Your task to perform on an android device: Open the map Image 0: 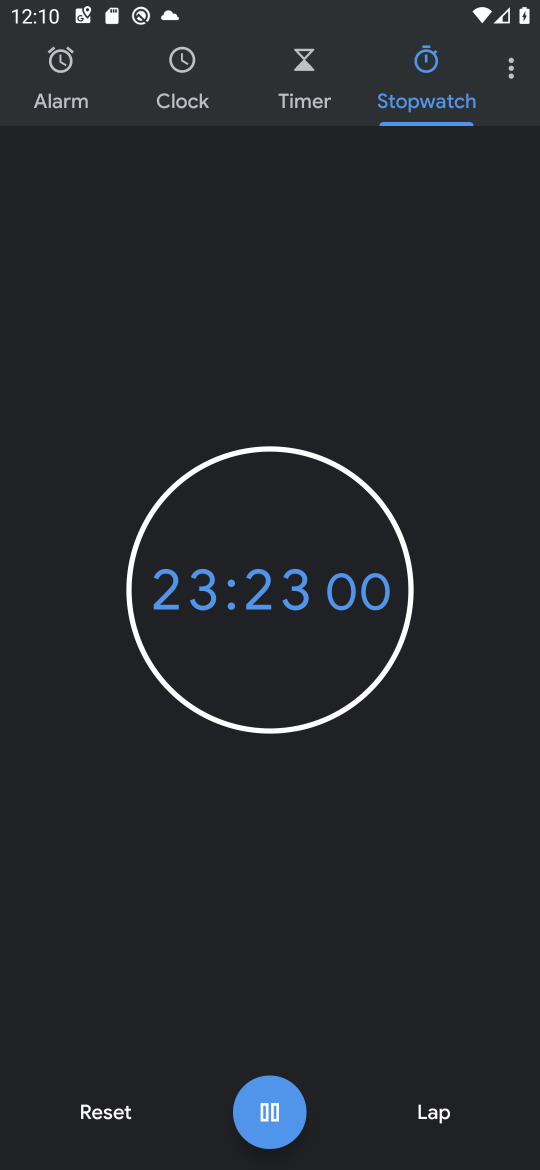
Step 0: click (270, 1103)
Your task to perform on an android device: Open the map Image 1: 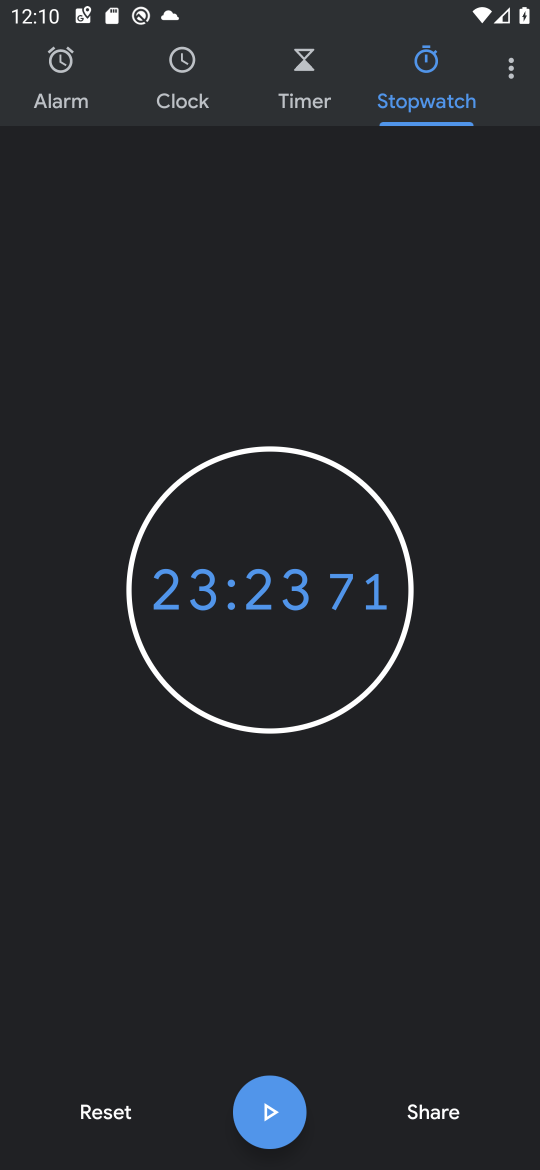
Step 1: press back button
Your task to perform on an android device: Open the map Image 2: 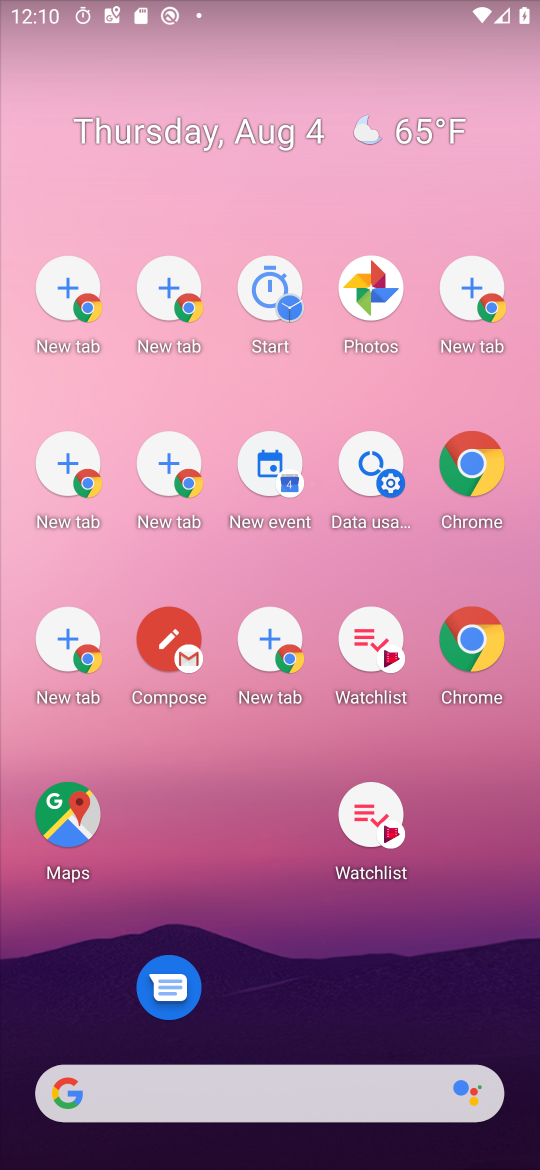
Step 2: click (60, 761)
Your task to perform on an android device: Open the map Image 3: 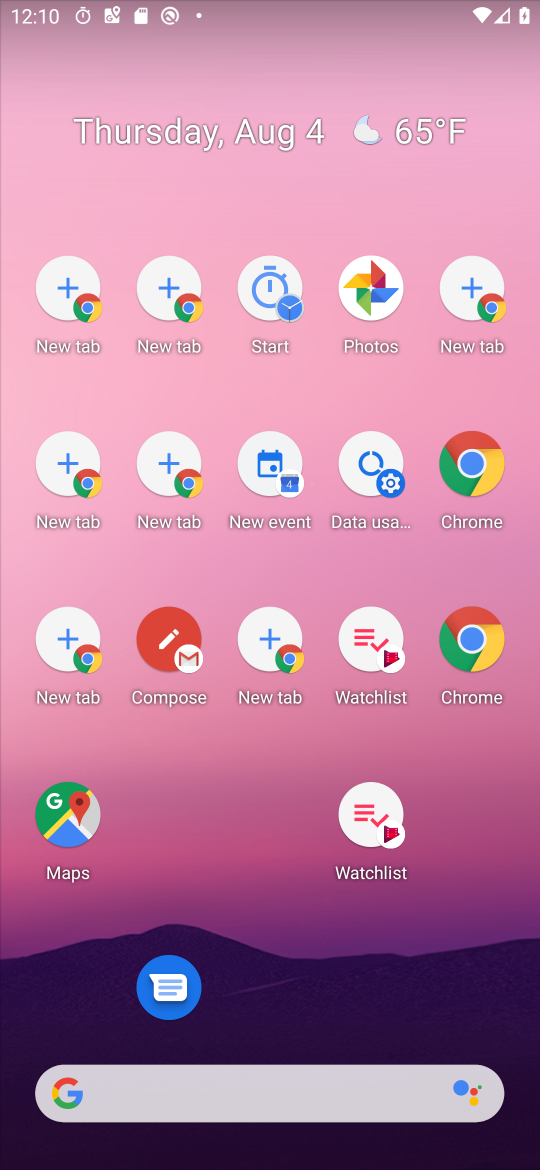
Step 3: click (75, 805)
Your task to perform on an android device: Open the map Image 4: 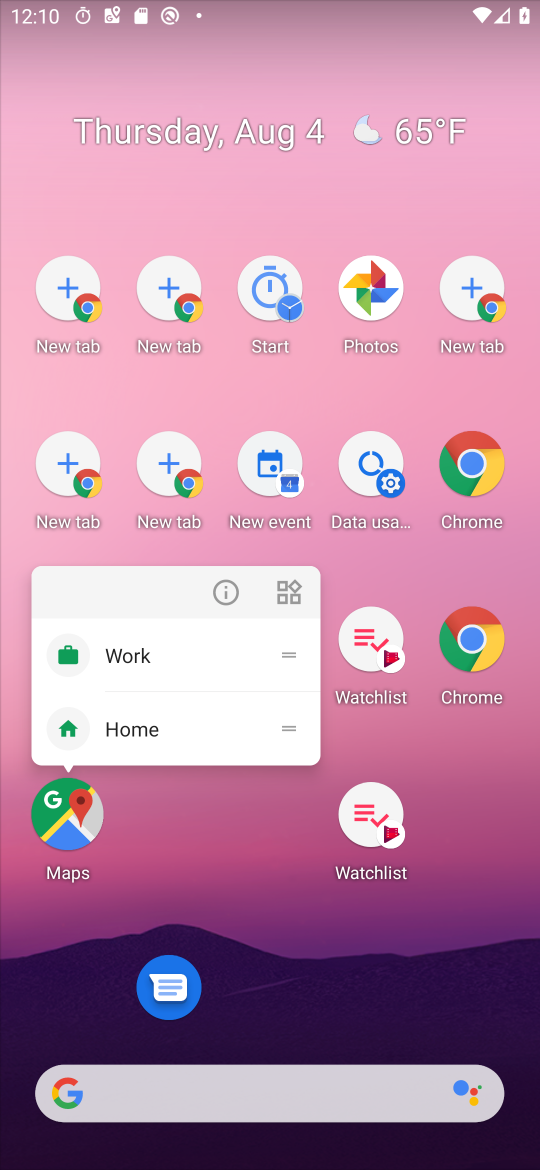
Step 4: click (62, 803)
Your task to perform on an android device: Open the map Image 5: 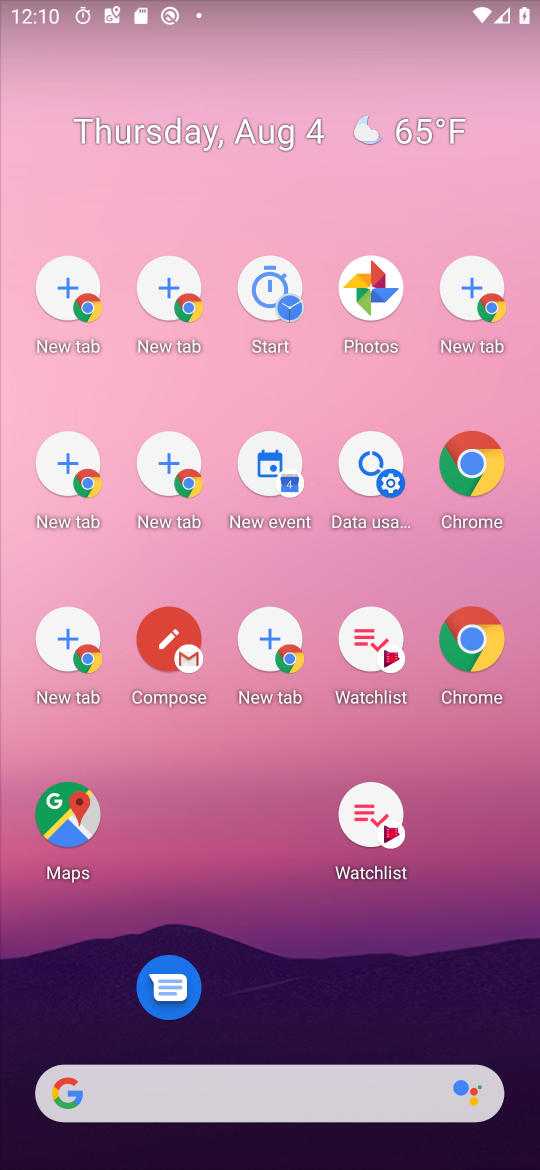
Step 5: click (63, 828)
Your task to perform on an android device: Open the map Image 6: 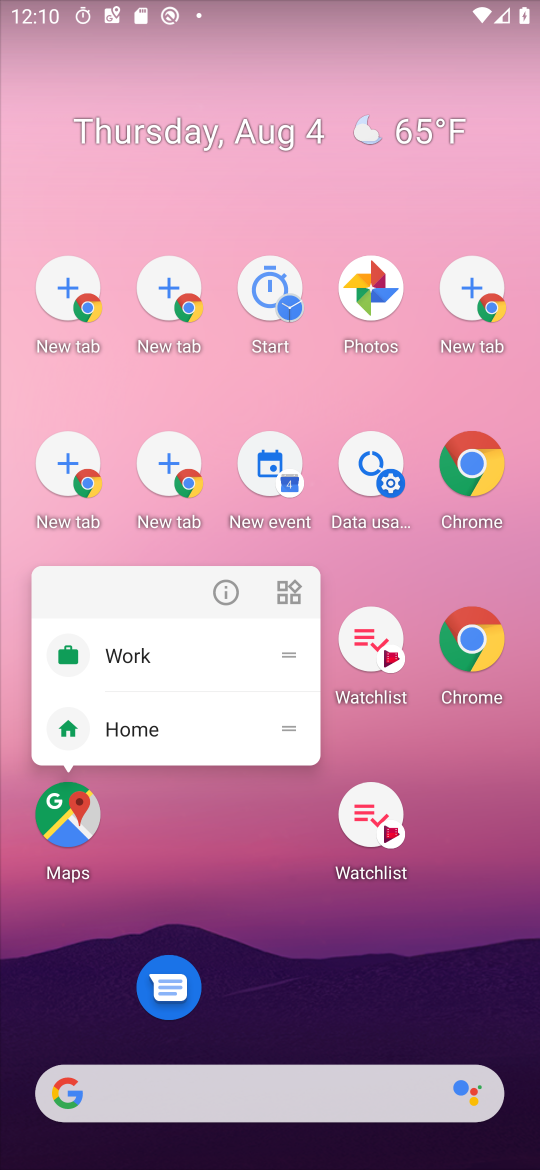
Step 6: click (132, 645)
Your task to perform on an android device: Open the map Image 7: 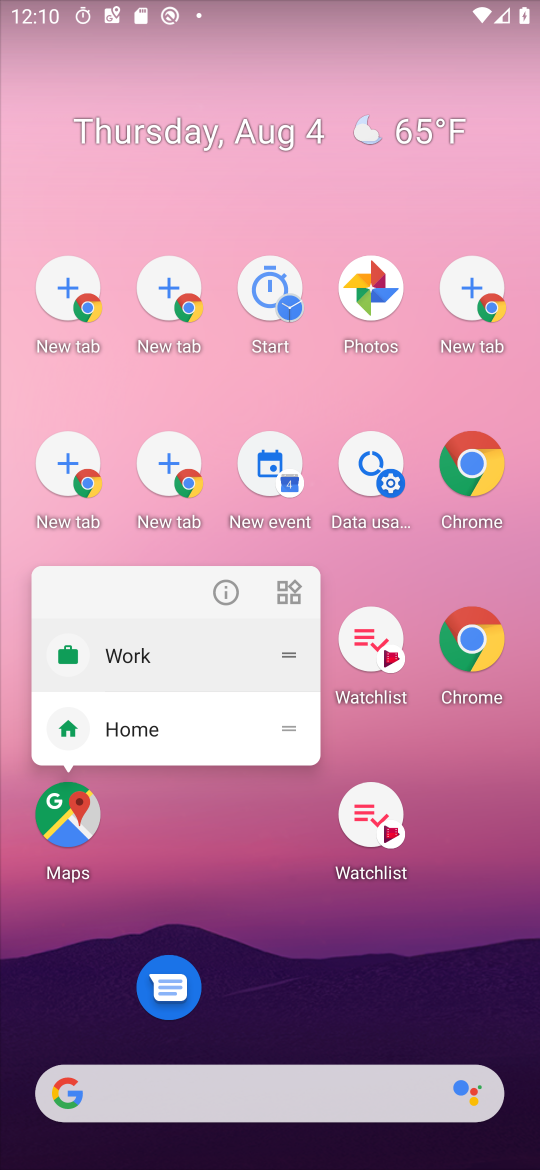
Step 7: click (132, 645)
Your task to perform on an android device: Open the map Image 8: 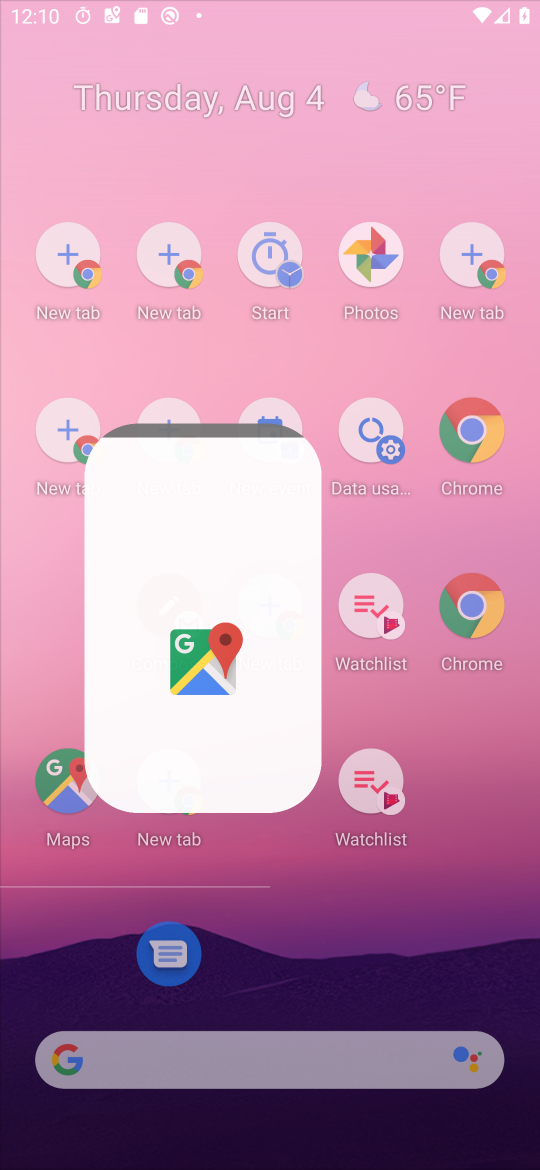
Step 8: click (74, 817)
Your task to perform on an android device: Open the map Image 9: 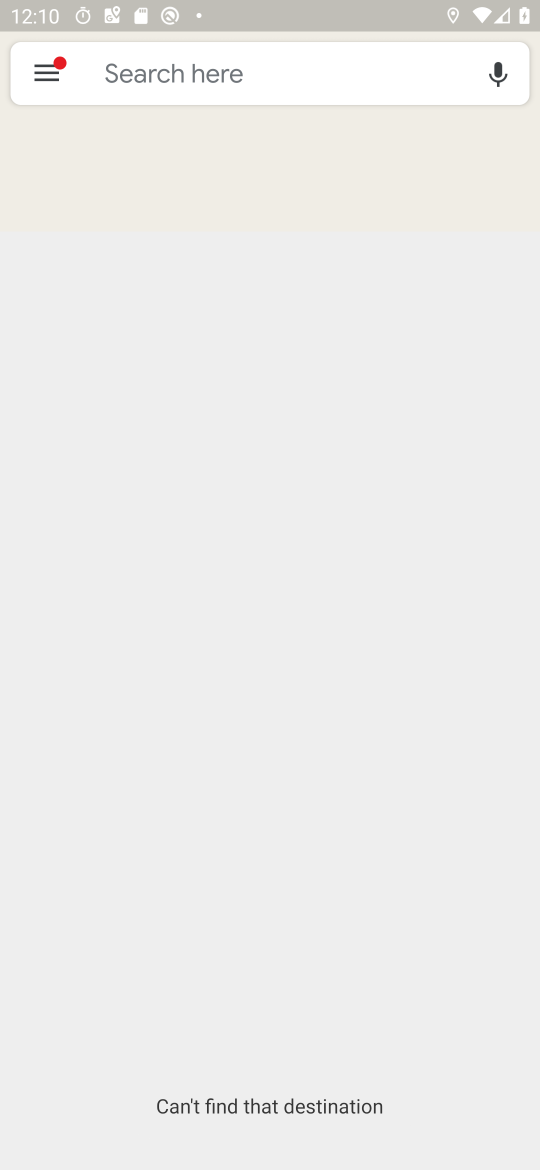
Step 9: task complete